Your task to perform on an android device: toggle show notifications on the lock screen Image 0: 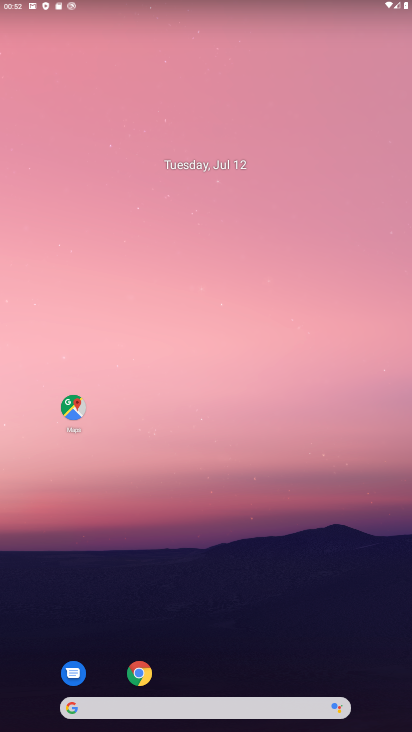
Step 0: press home button
Your task to perform on an android device: toggle show notifications on the lock screen Image 1: 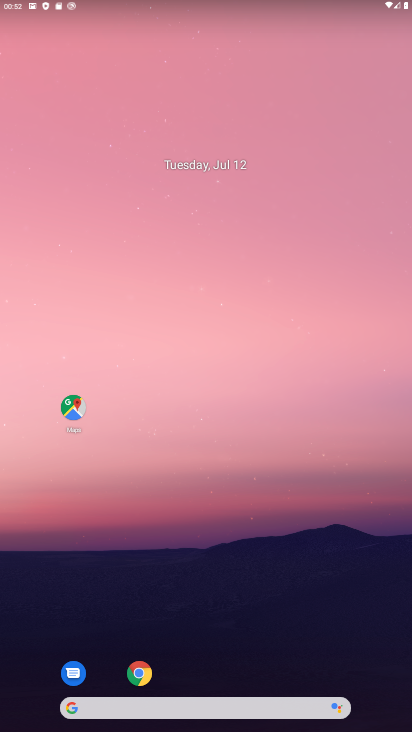
Step 1: drag from (264, 612) to (259, 54)
Your task to perform on an android device: toggle show notifications on the lock screen Image 2: 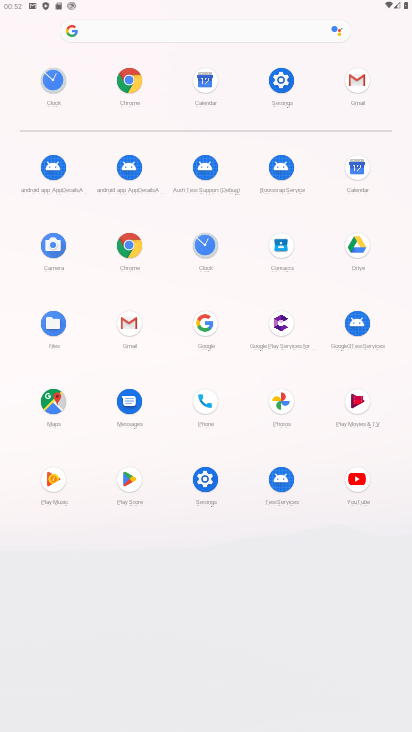
Step 2: click (269, 83)
Your task to perform on an android device: toggle show notifications on the lock screen Image 3: 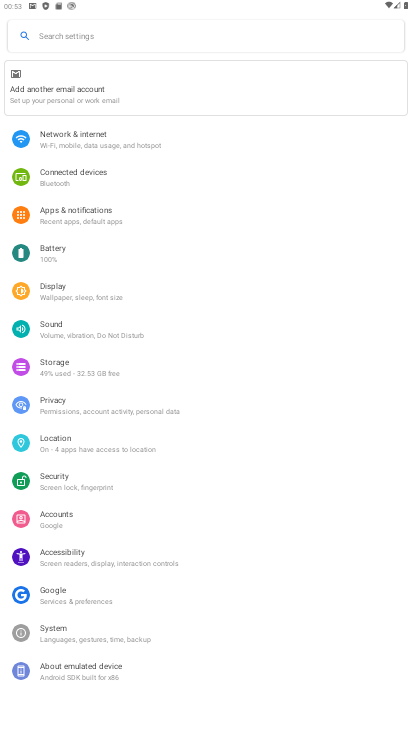
Step 3: click (95, 214)
Your task to perform on an android device: toggle show notifications on the lock screen Image 4: 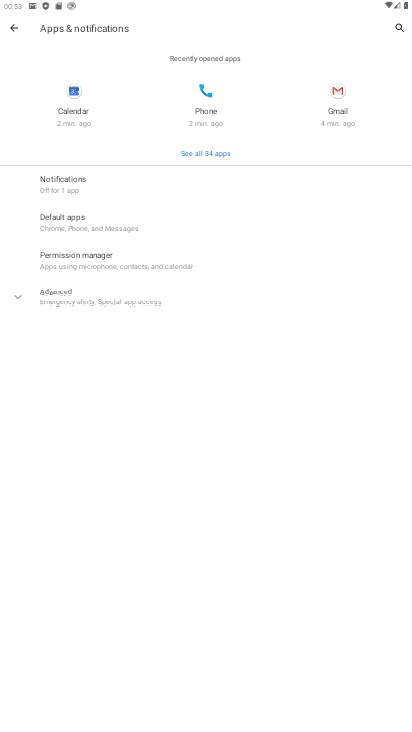
Step 4: click (63, 179)
Your task to perform on an android device: toggle show notifications on the lock screen Image 5: 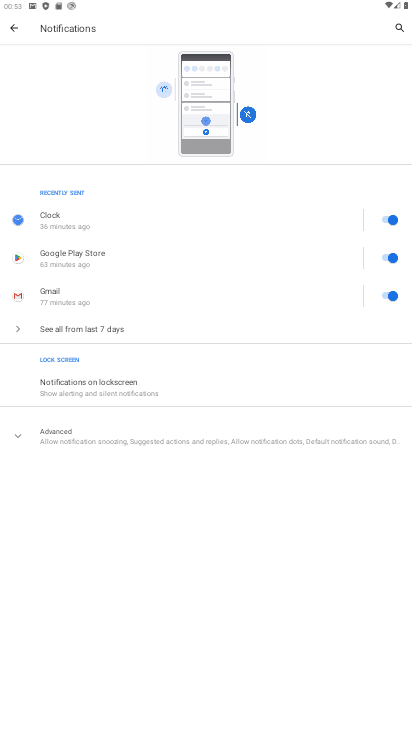
Step 5: click (111, 384)
Your task to perform on an android device: toggle show notifications on the lock screen Image 6: 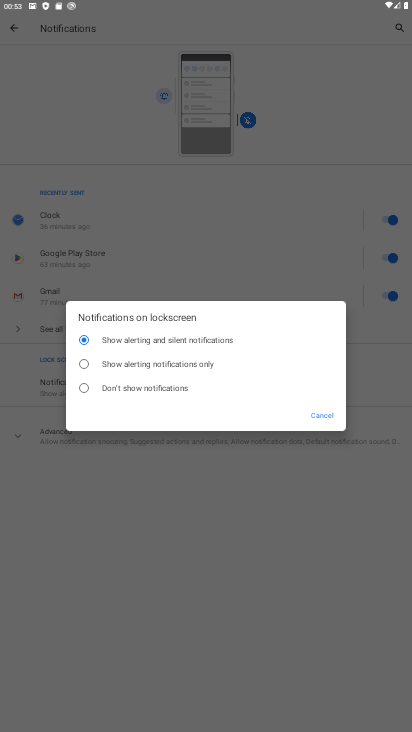
Step 6: click (90, 388)
Your task to perform on an android device: toggle show notifications on the lock screen Image 7: 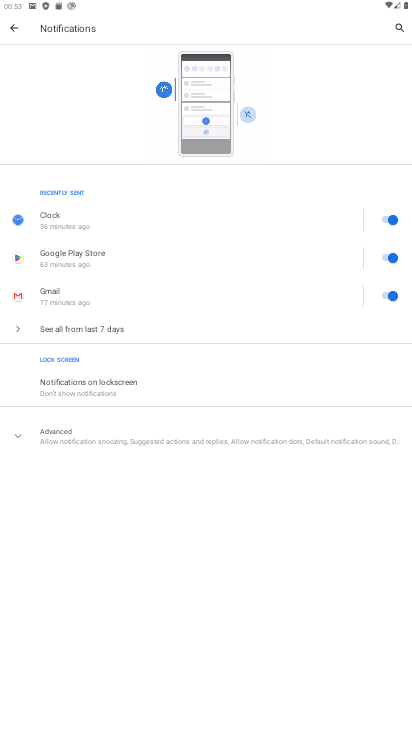
Step 7: task complete